Your task to perform on an android device: Do I have any events tomorrow? Image 0: 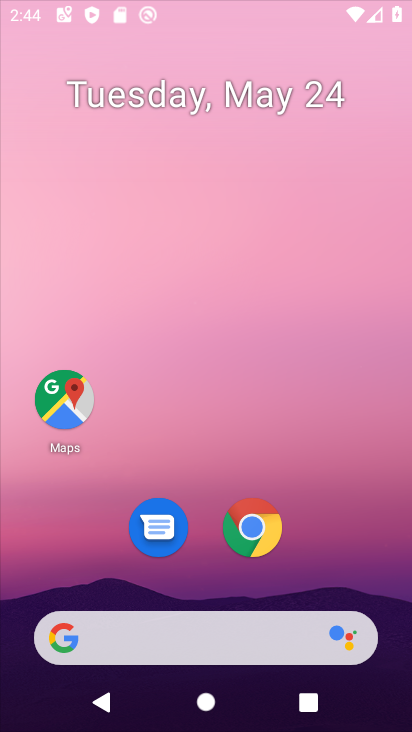
Step 0: drag from (239, 705) to (110, 132)
Your task to perform on an android device: Do I have any events tomorrow? Image 1: 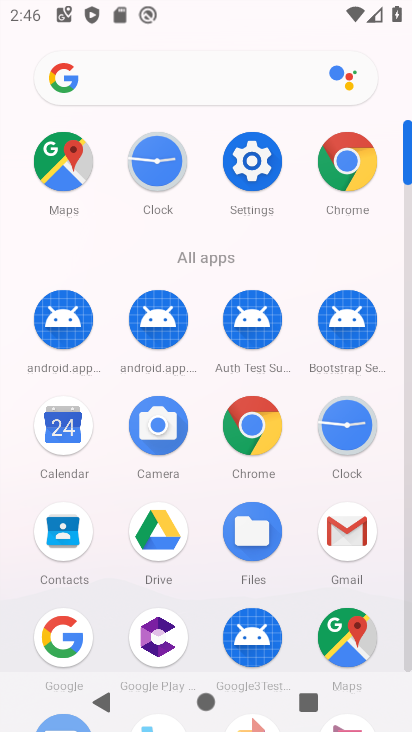
Step 1: click (69, 431)
Your task to perform on an android device: Do I have any events tomorrow? Image 2: 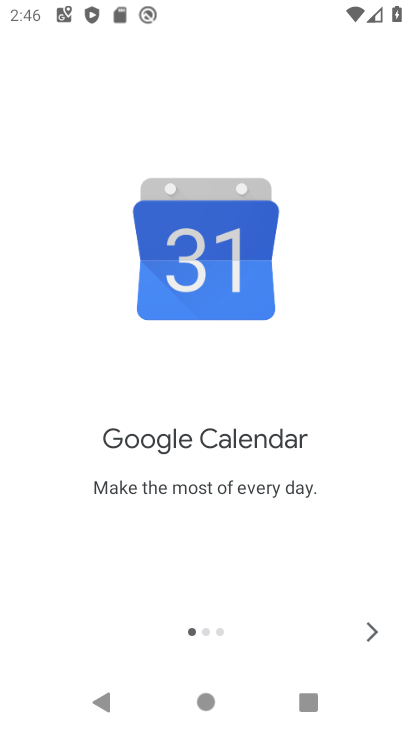
Step 2: click (376, 626)
Your task to perform on an android device: Do I have any events tomorrow? Image 3: 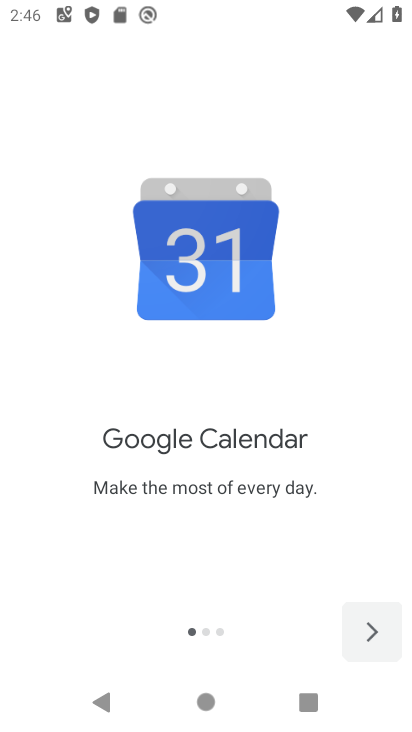
Step 3: click (376, 626)
Your task to perform on an android device: Do I have any events tomorrow? Image 4: 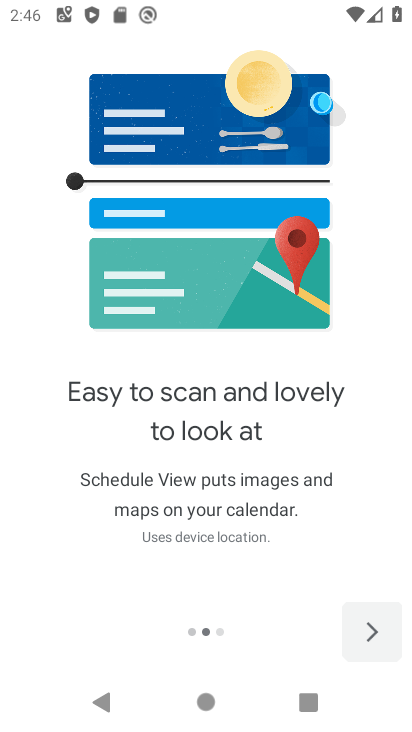
Step 4: click (376, 626)
Your task to perform on an android device: Do I have any events tomorrow? Image 5: 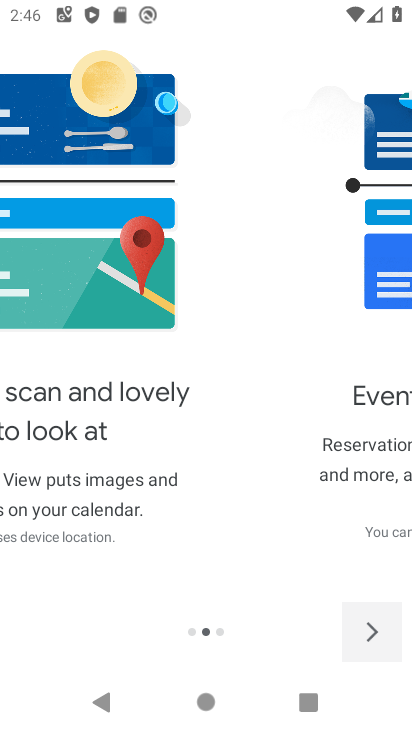
Step 5: click (376, 626)
Your task to perform on an android device: Do I have any events tomorrow? Image 6: 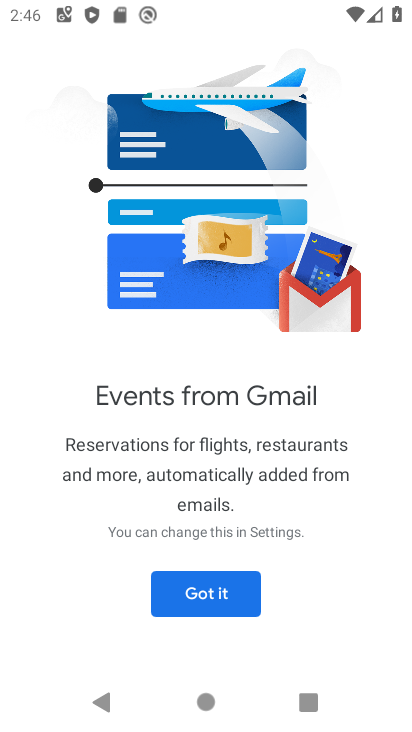
Step 6: click (242, 597)
Your task to perform on an android device: Do I have any events tomorrow? Image 7: 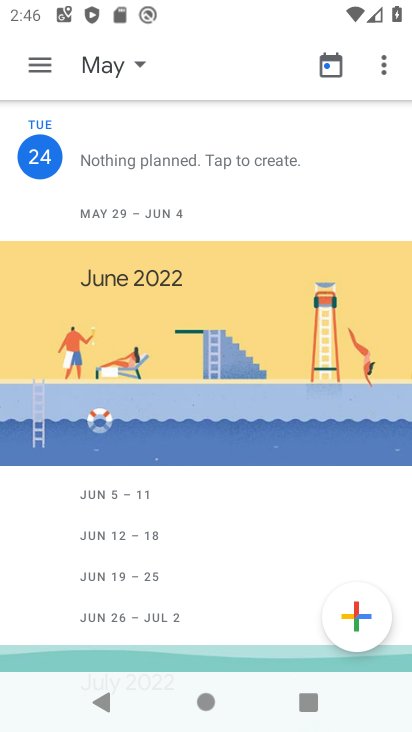
Step 7: press back button
Your task to perform on an android device: Do I have any events tomorrow? Image 8: 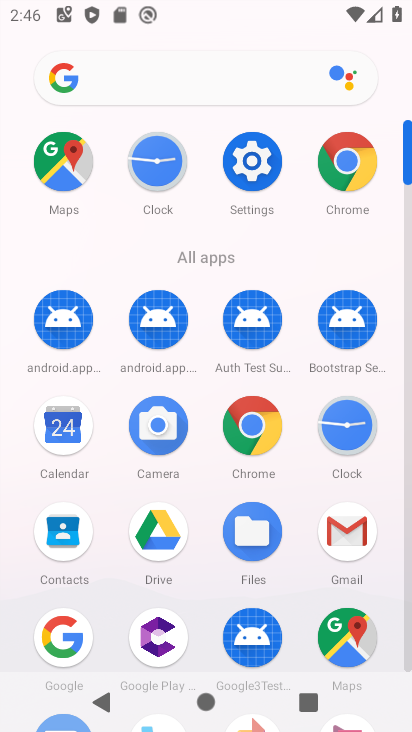
Step 8: click (66, 416)
Your task to perform on an android device: Do I have any events tomorrow? Image 9: 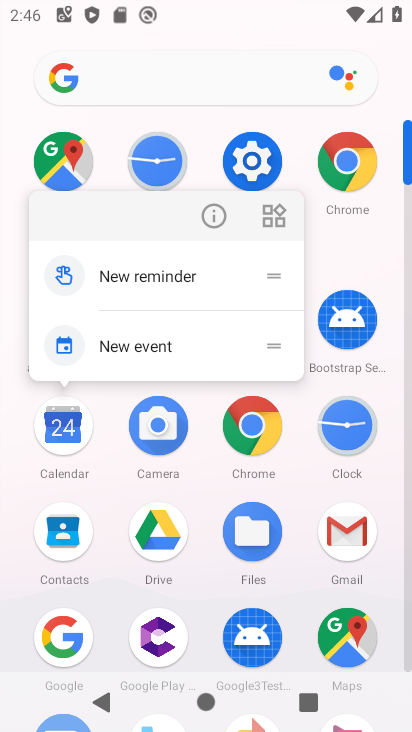
Step 9: click (134, 345)
Your task to perform on an android device: Do I have any events tomorrow? Image 10: 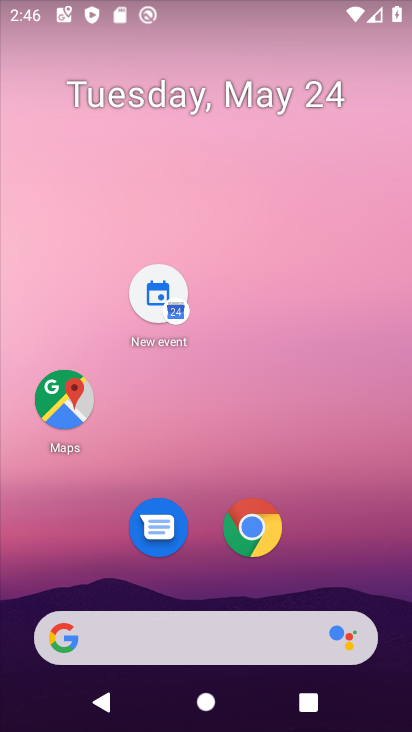
Step 10: drag from (215, 589) to (118, 215)
Your task to perform on an android device: Do I have any events tomorrow? Image 11: 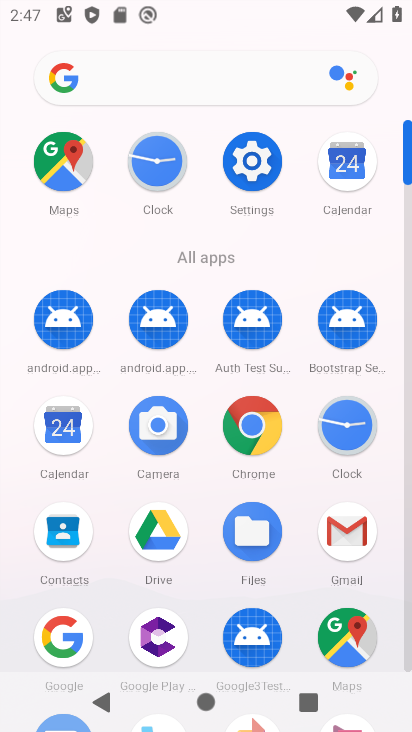
Step 11: click (69, 422)
Your task to perform on an android device: Do I have any events tomorrow? Image 12: 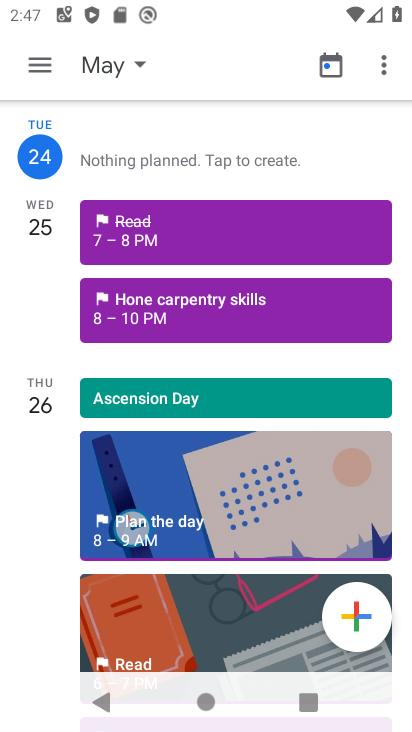
Step 12: click (129, 231)
Your task to perform on an android device: Do I have any events tomorrow? Image 13: 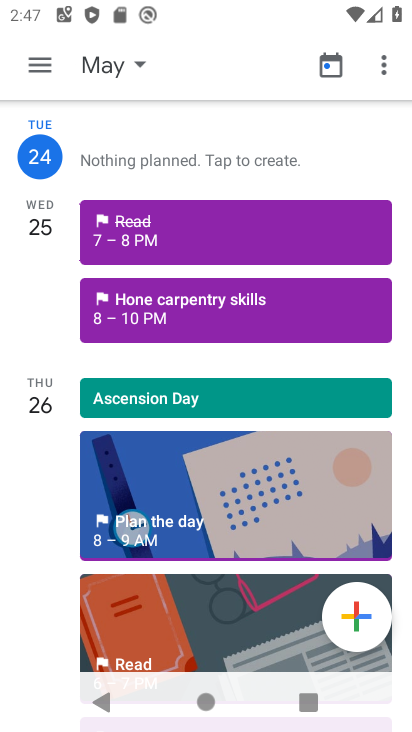
Step 13: click (131, 231)
Your task to perform on an android device: Do I have any events tomorrow? Image 14: 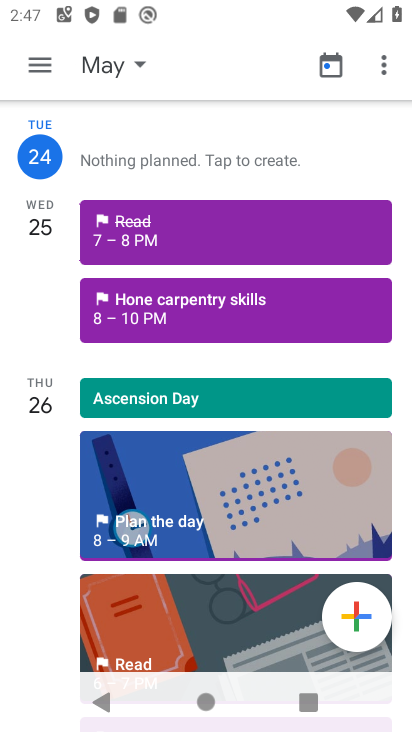
Step 14: click (173, 312)
Your task to perform on an android device: Do I have any events tomorrow? Image 15: 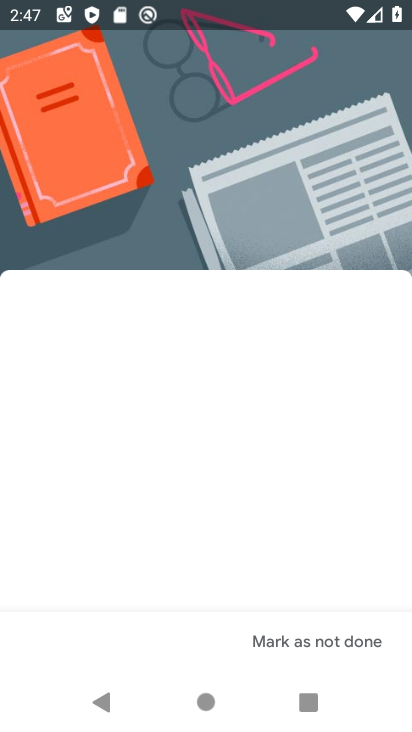
Step 15: click (173, 312)
Your task to perform on an android device: Do I have any events tomorrow? Image 16: 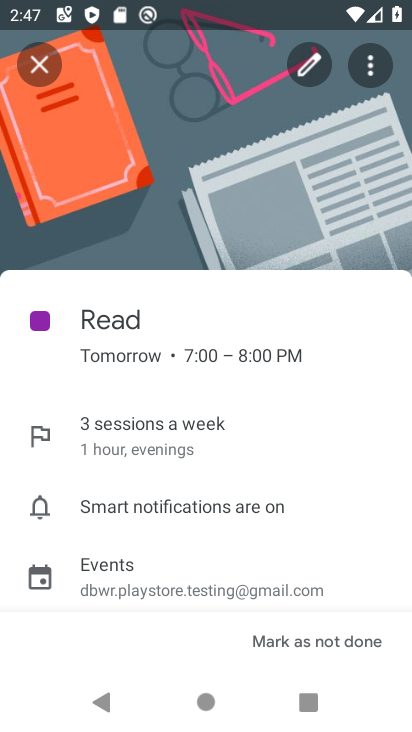
Step 16: click (173, 312)
Your task to perform on an android device: Do I have any events tomorrow? Image 17: 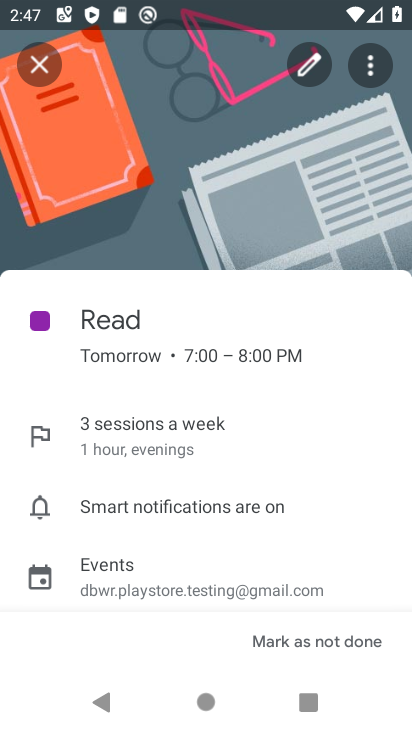
Step 17: task complete